Your task to perform on an android device: turn on javascript in the chrome app Image 0: 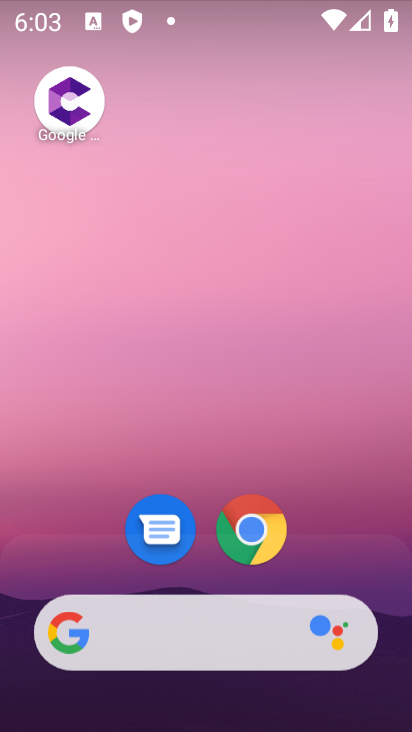
Step 0: click (262, 527)
Your task to perform on an android device: turn on javascript in the chrome app Image 1: 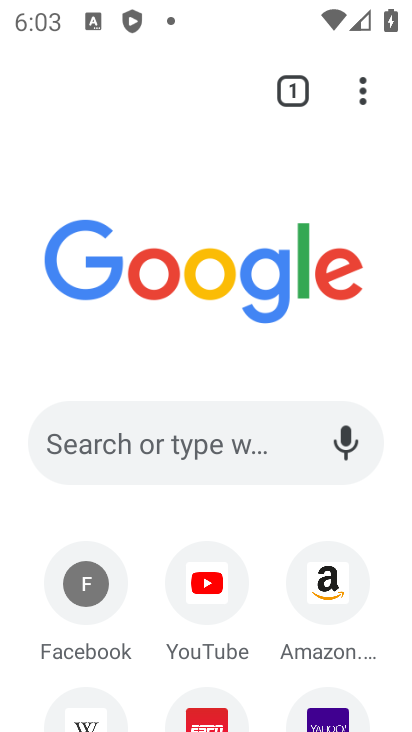
Step 1: click (360, 86)
Your task to perform on an android device: turn on javascript in the chrome app Image 2: 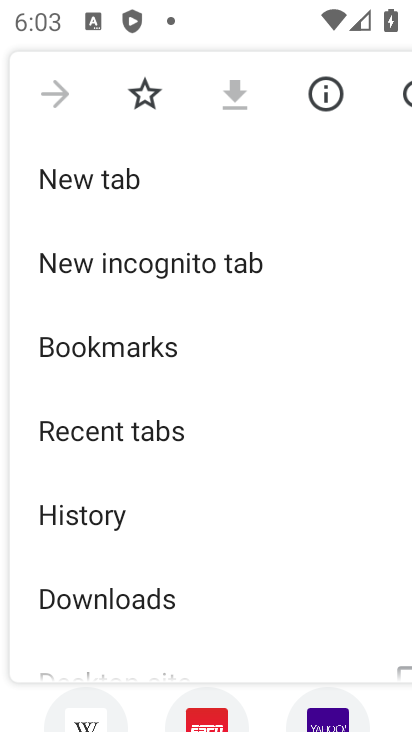
Step 2: drag from (264, 570) to (219, 177)
Your task to perform on an android device: turn on javascript in the chrome app Image 3: 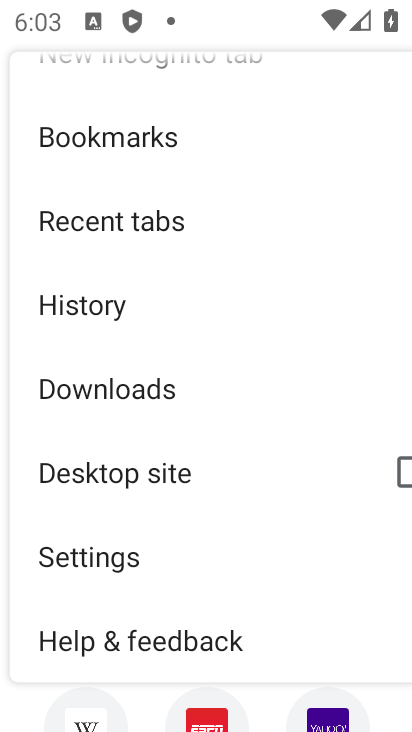
Step 3: click (154, 549)
Your task to perform on an android device: turn on javascript in the chrome app Image 4: 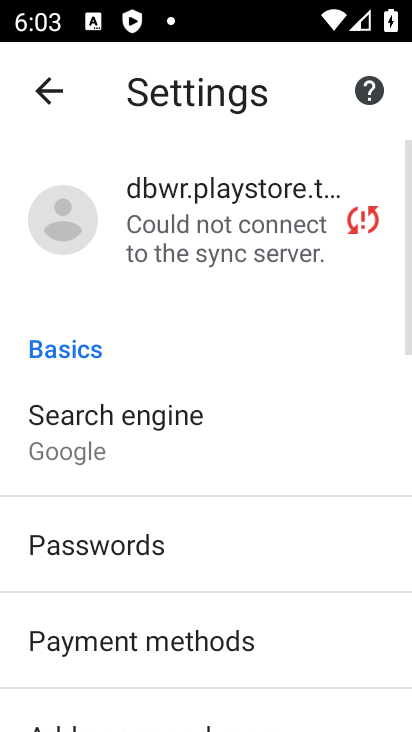
Step 4: drag from (238, 607) to (184, 198)
Your task to perform on an android device: turn on javascript in the chrome app Image 5: 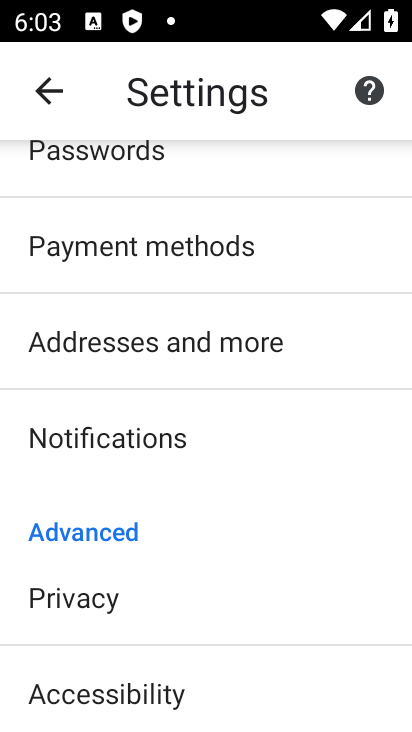
Step 5: drag from (230, 580) to (186, 186)
Your task to perform on an android device: turn on javascript in the chrome app Image 6: 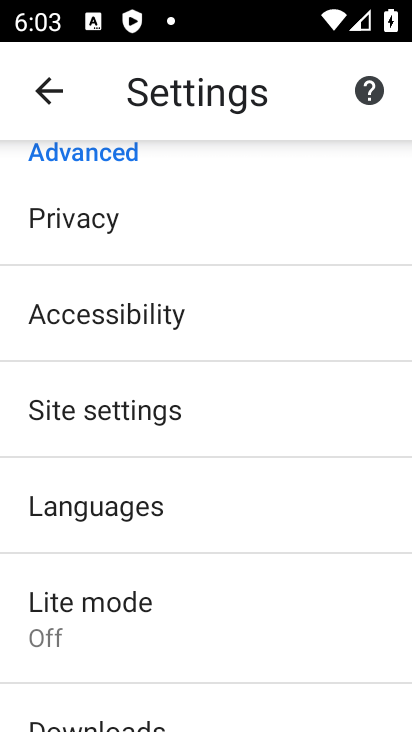
Step 6: click (149, 407)
Your task to perform on an android device: turn on javascript in the chrome app Image 7: 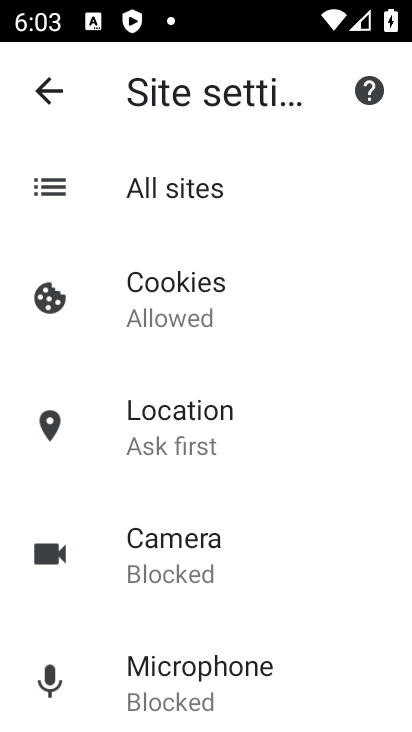
Step 7: drag from (252, 694) to (199, 244)
Your task to perform on an android device: turn on javascript in the chrome app Image 8: 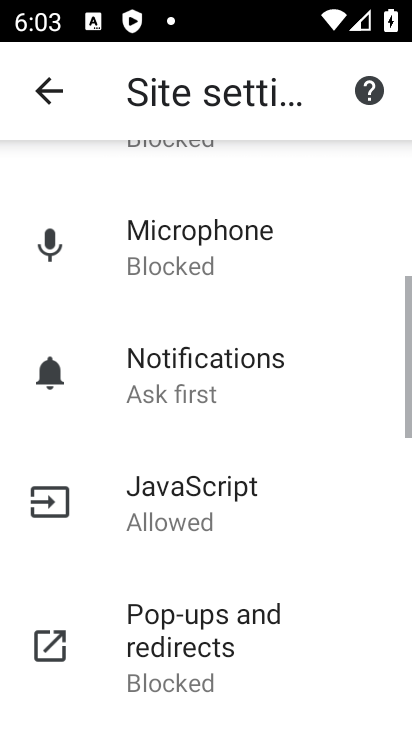
Step 8: click (198, 495)
Your task to perform on an android device: turn on javascript in the chrome app Image 9: 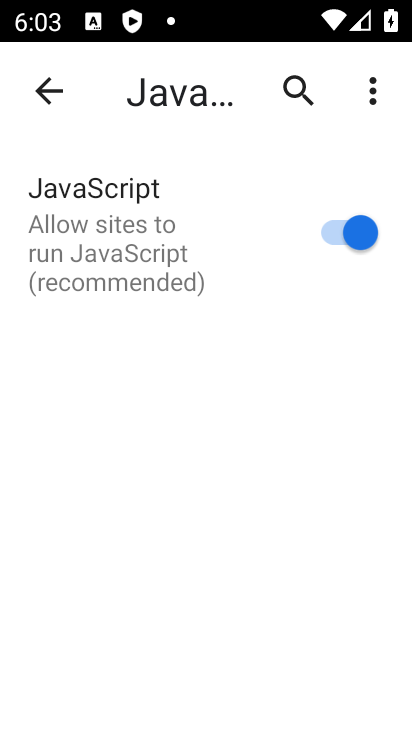
Step 9: task complete